Your task to perform on an android device: Search for Italian restaurants on Maps Image 0: 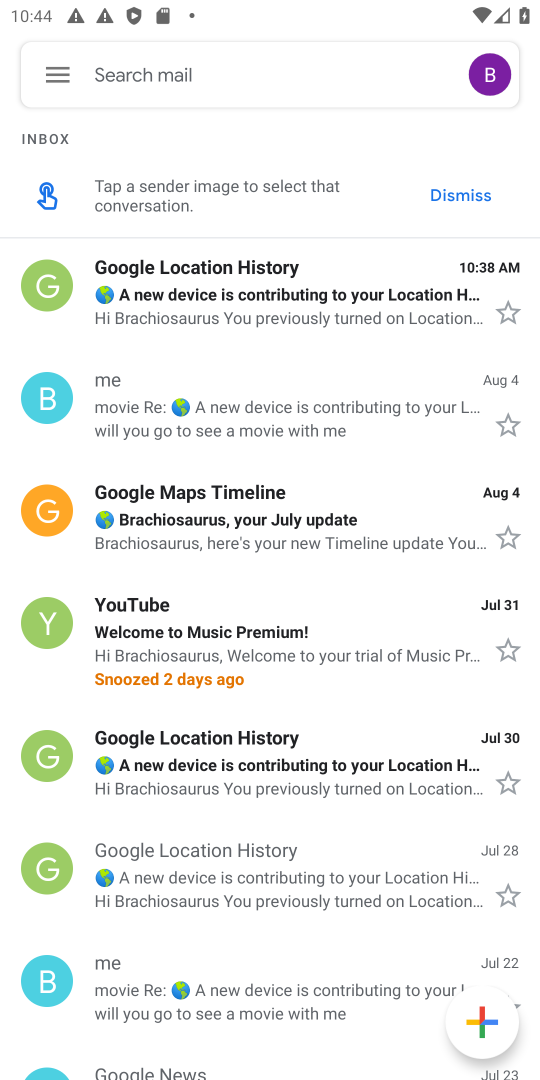
Step 0: press home button
Your task to perform on an android device: Search for Italian restaurants on Maps Image 1: 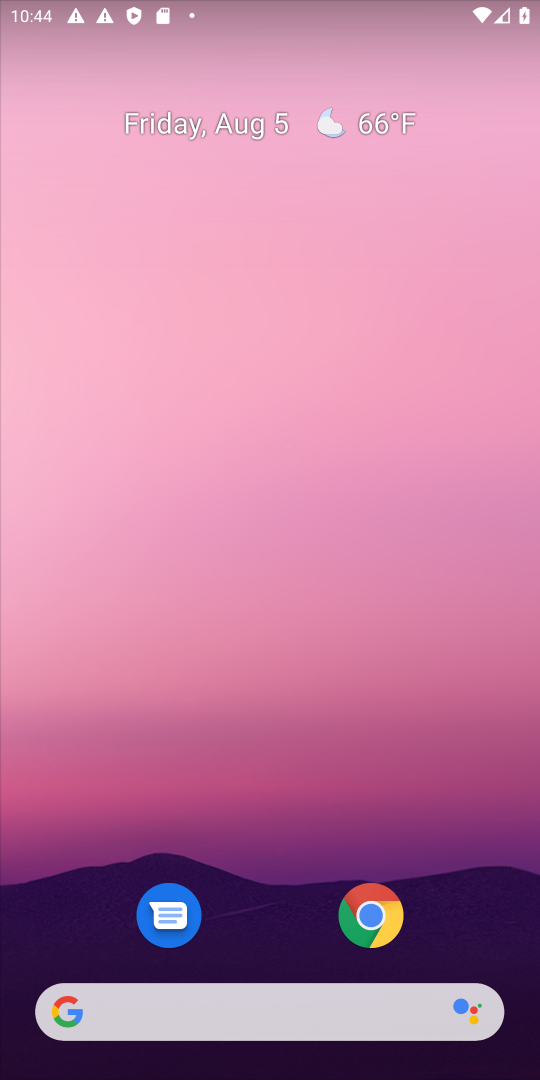
Step 1: drag from (253, 606) to (238, 118)
Your task to perform on an android device: Search for Italian restaurants on Maps Image 2: 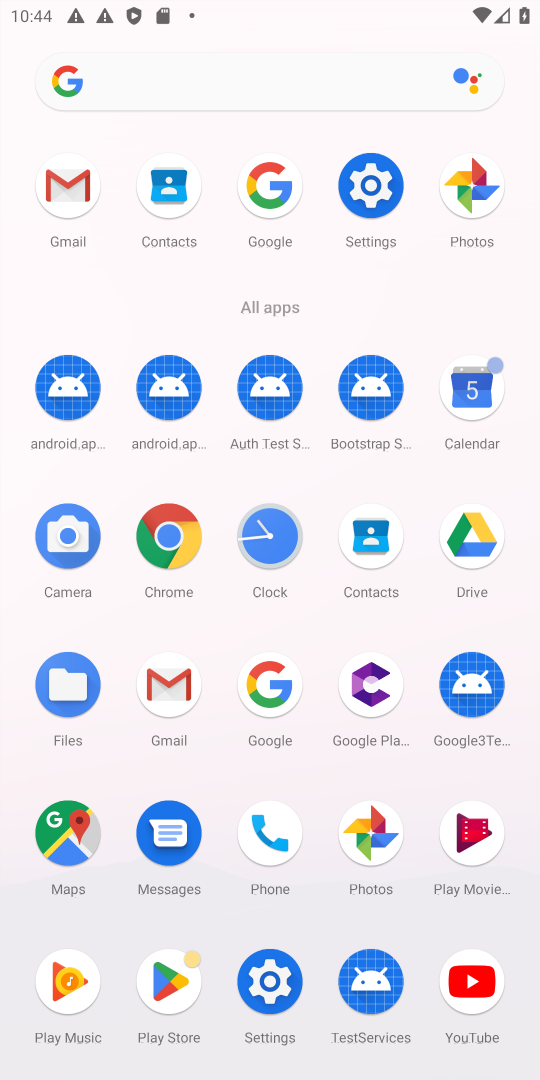
Step 2: click (73, 833)
Your task to perform on an android device: Search for Italian restaurants on Maps Image 3: 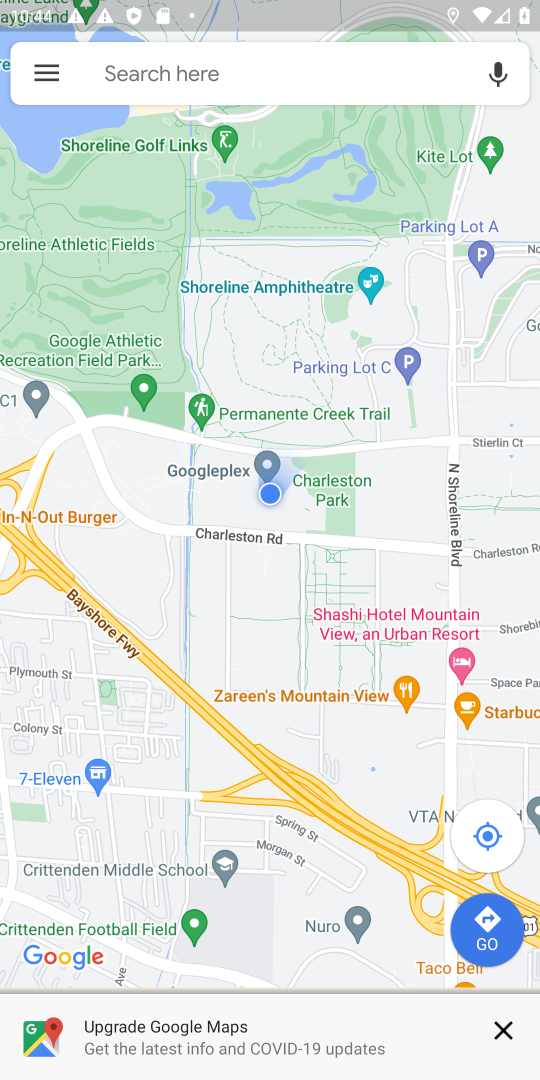
Step 3: click (320, 72)
Your task to perform on an android device: Search for Italian restaurants on Maps Image 4: 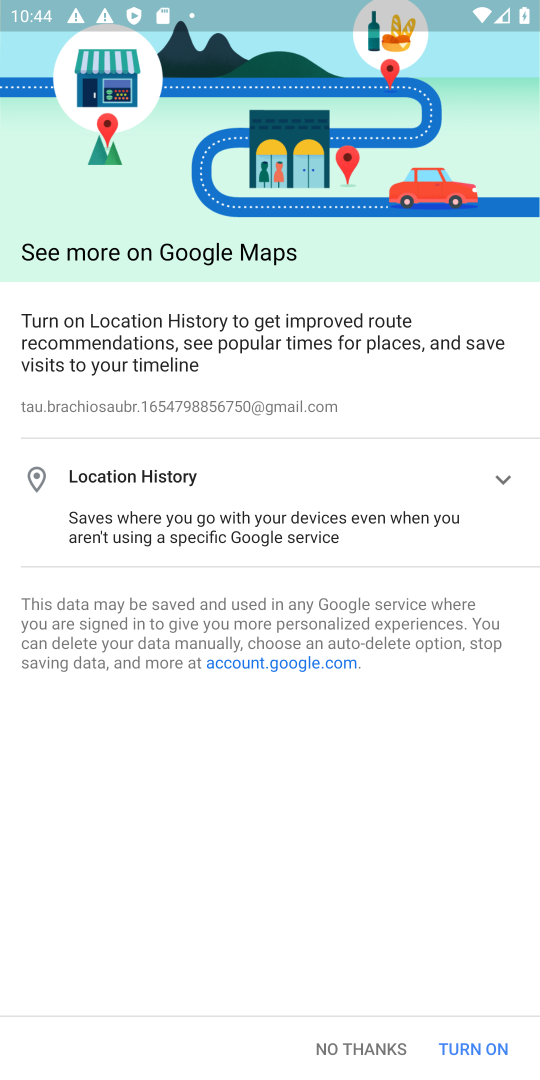
Step 4: type "Italian restaurants"
Your task to perform on an android device: Search for Italian restaurants on Maps Image 5: 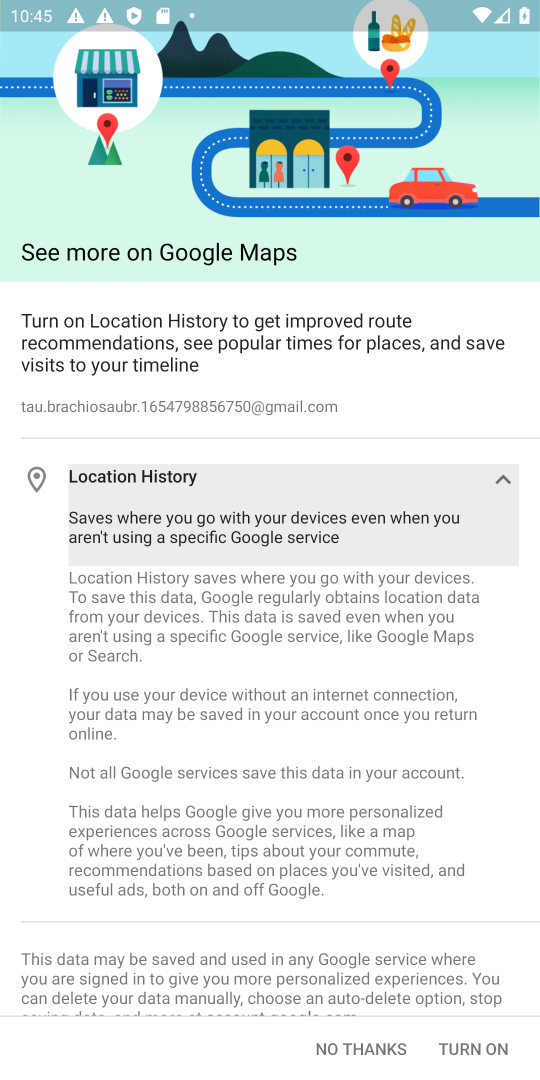
Step 5: drag from (418, 938) to (394, 529)
Your task to perform on an android device: Search for Italian restaurants on Maps Image 6: 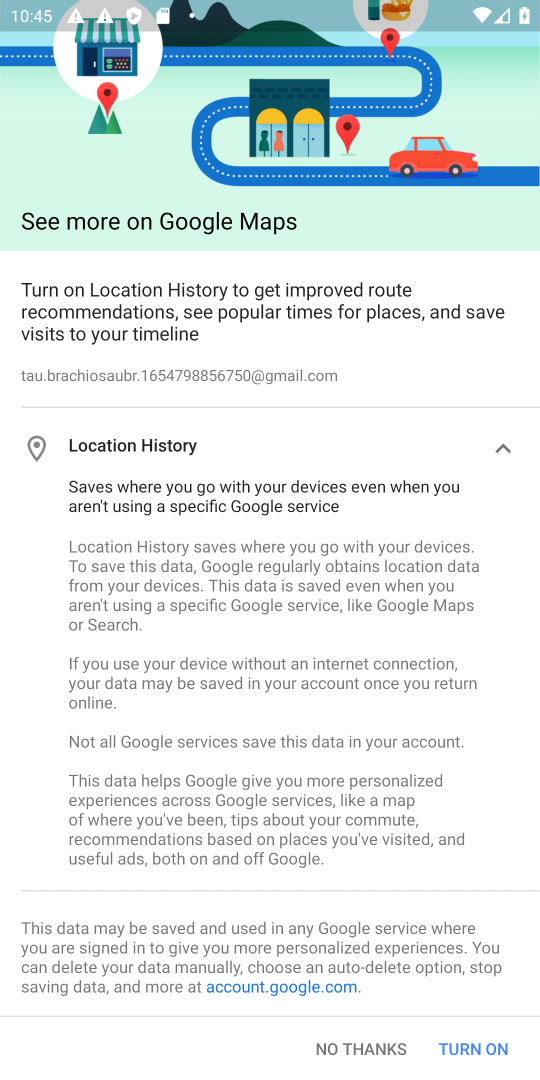
Step 6: click (475, 1043)
Your task to perform on an android device: Search for Italian restaurants on Maps Image 7: 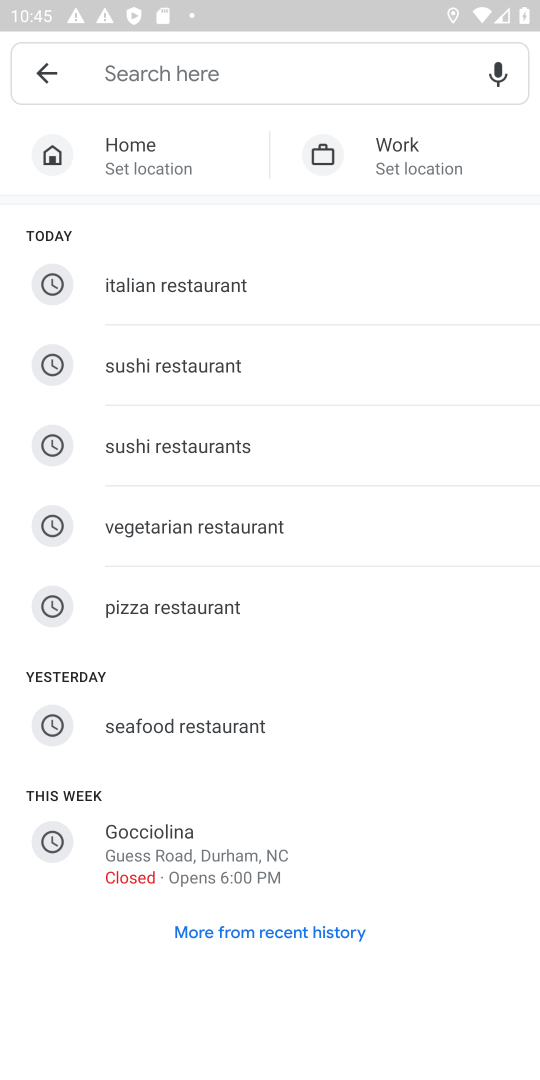
Step 7: click (196, 66)
Your task to perform on an android device: Search for Italian restaurants on Maps Image 8: 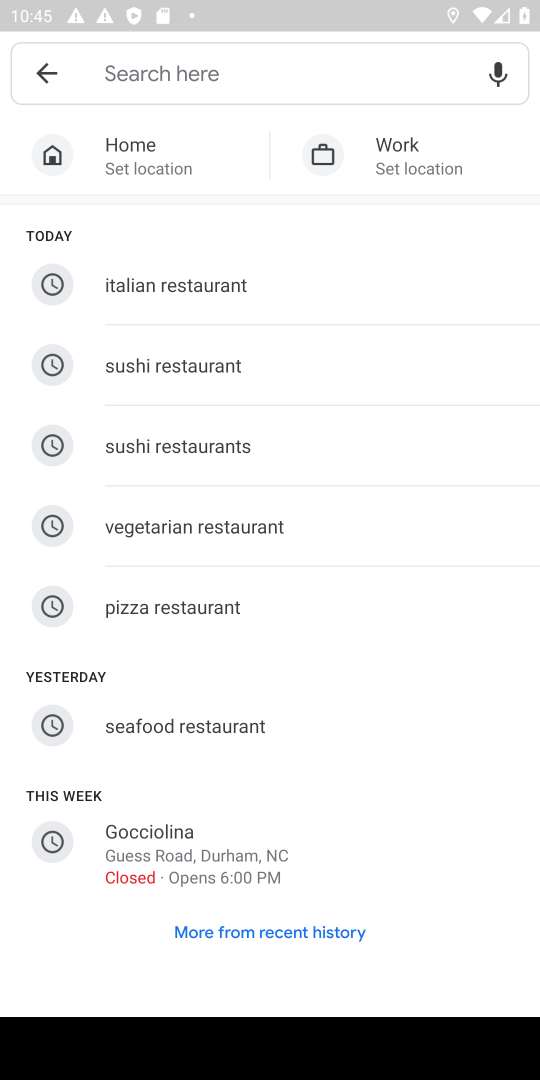
Step 8: type "Italian restaurants"
Your task to perform on an android device: Search for Italian restaurants on Maps Image 9: 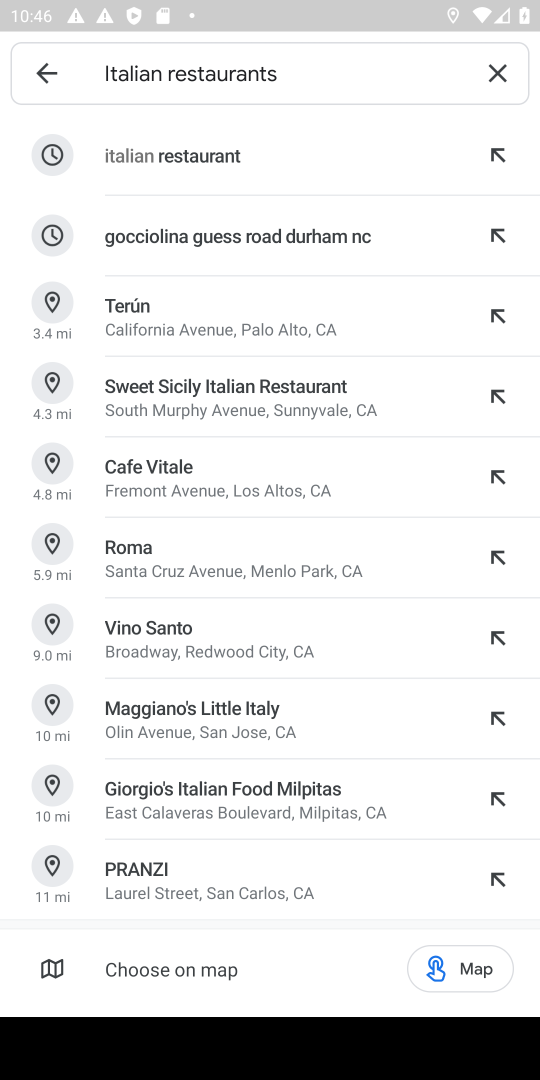
Step 9: click (229, 156)
Your task to perform on an android device: Search for Italian restaurants on Maps Image 10: 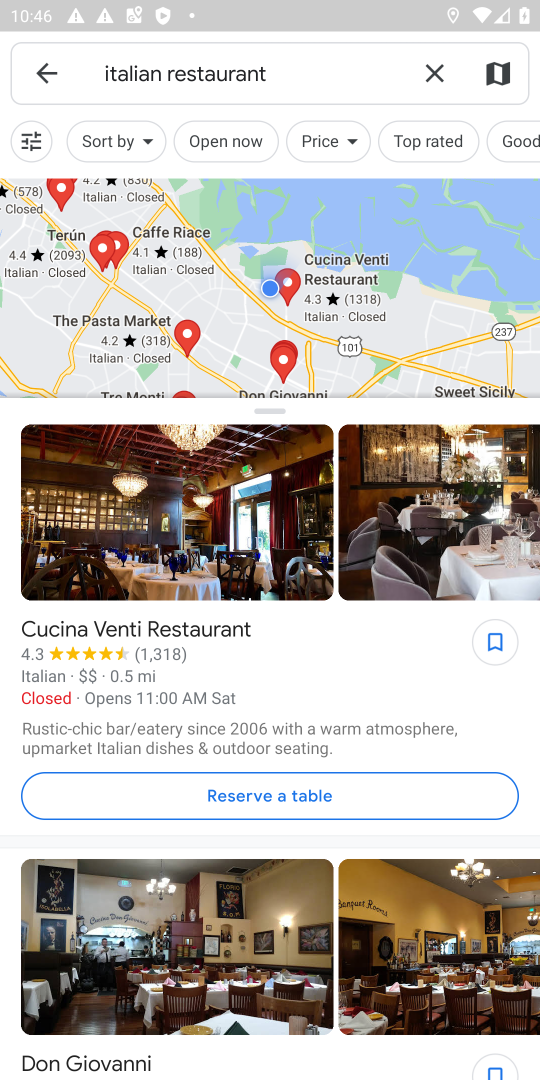
Step 10: task complete